Your task to perform on an android device: install app "Roku - Official Remote Control" Image 0: 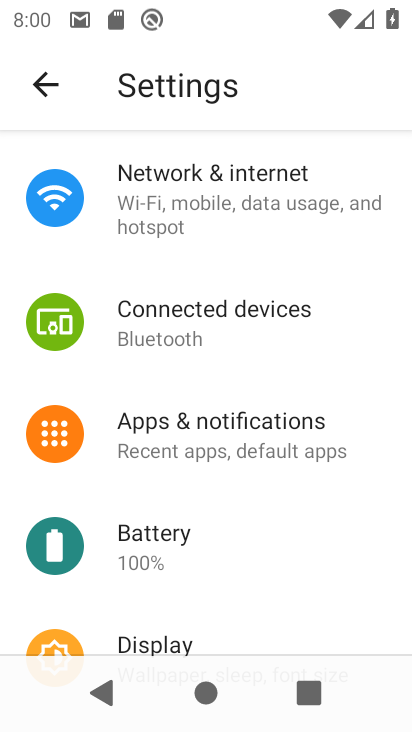
Step 0: press home button
Your task to perform on an android device: install app "Roku - Official Remote Control" Image 1: 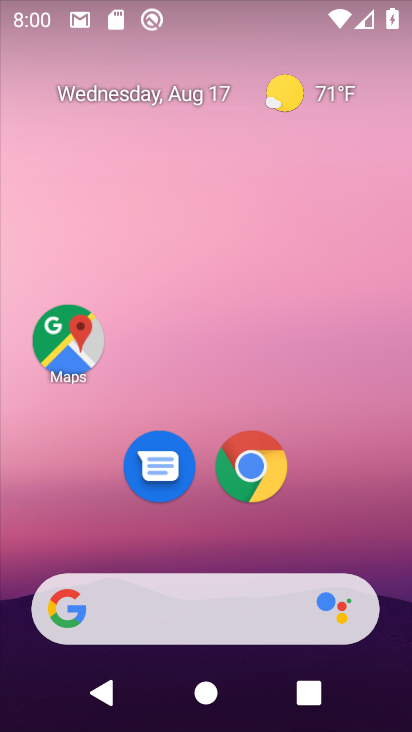
Step 1: drag from (190, 553) to (188, 0)
Your task to perform on an android device: install app "Roku - Official Remote Control" Image 2: 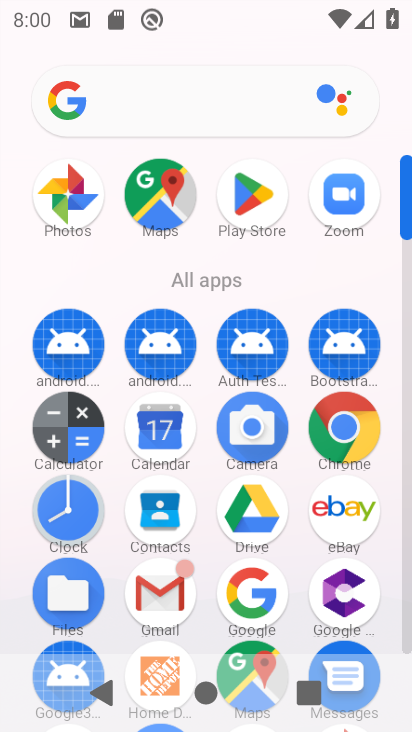
Step 2: click (256, 209)
Your task to perform on an android device: install app "Roku - Official Remote Control" Image 3: 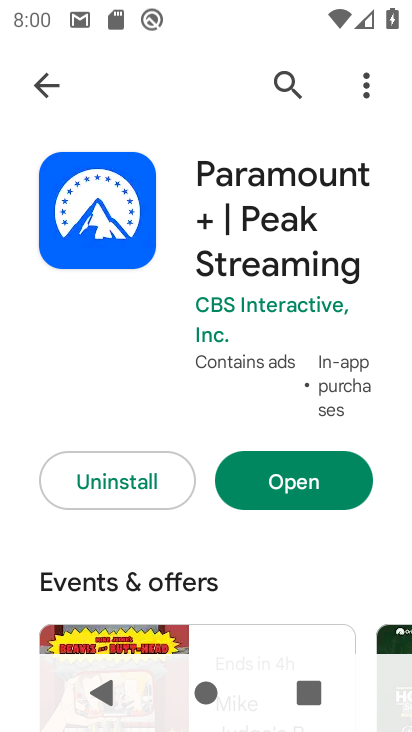
Step 3: click (49, 88)
Your task to perform on an android device: install app "Roku - Official Remote Control" Image 4: 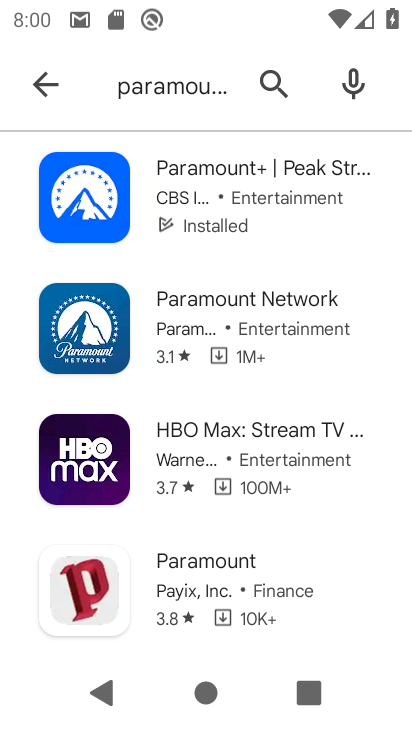
Step 4: click (157, 72)
Your task to perform on an android device: install app "Roku - Official Remote Control" Image 5: 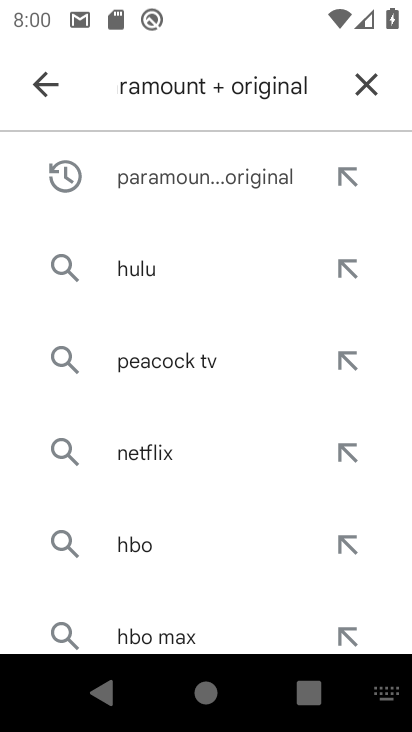
Step 5: click (364, 81)
Your task to perform on an android device: install app "Roku - Official Remote Control" Image 6: 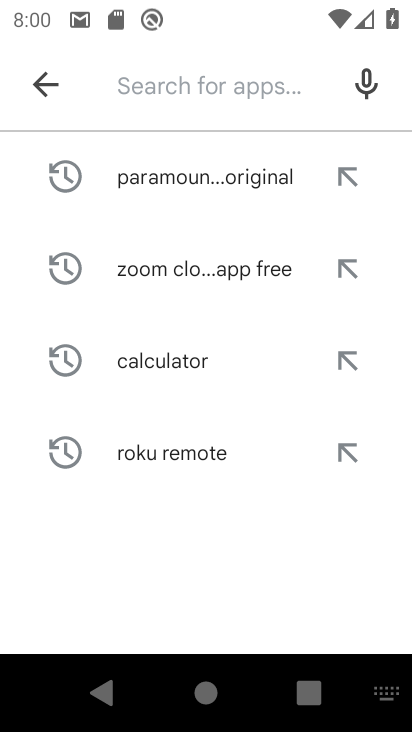
Step 6: type "roku"
Your task to perform on an android device: install app "Roku - Official Remote Control" Image 7: 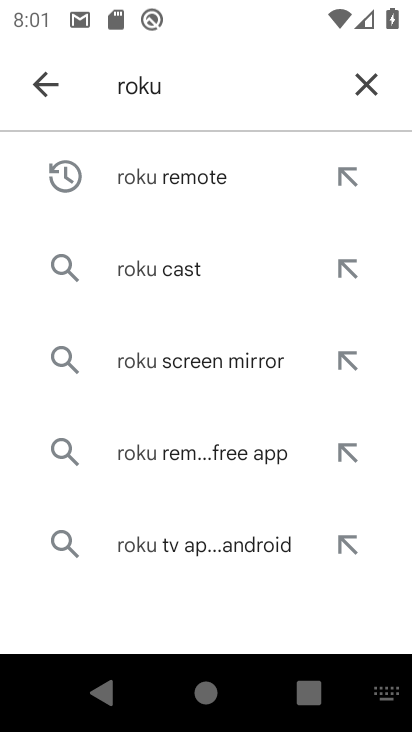
Step 7: click (215, 189)
Your task to perform on an android device: install app "Roku - Official Remote Control" Image 8: 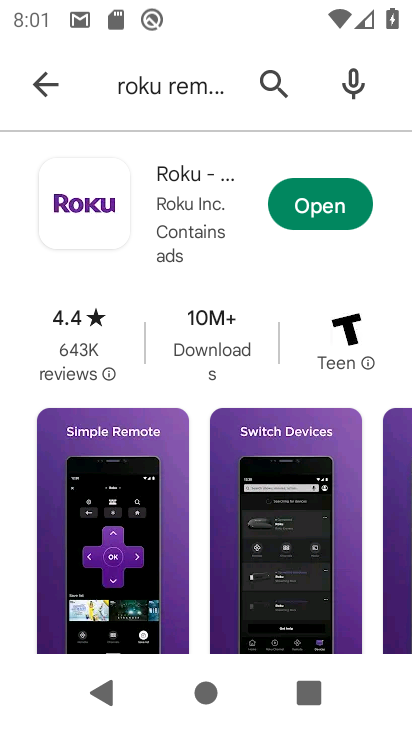
Step 8: task complete